Your task to perform on an android device: check the backup settings in the google photos Image 0: 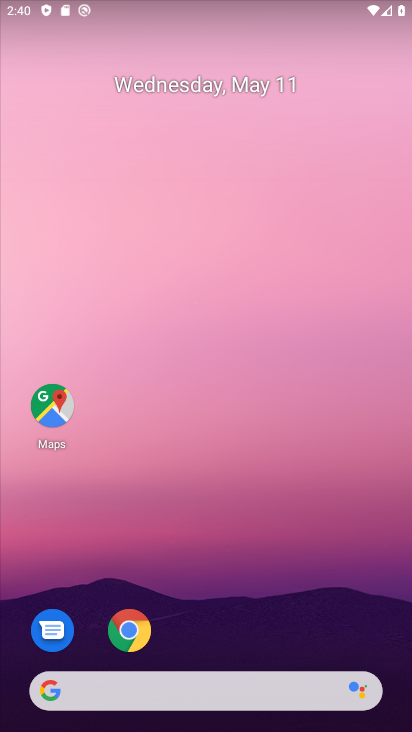
Step 0: drag from (369, 659) to (388, 27)
Your task to perform on an android device: check the backup settings in the google photos Image 1: 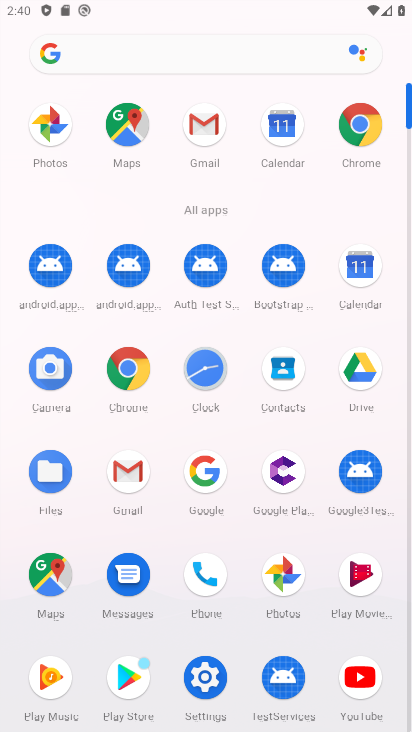
Step 1: click (53, 132)
Your task to perform on an android device: check the backup settings in the google photos Image 2: 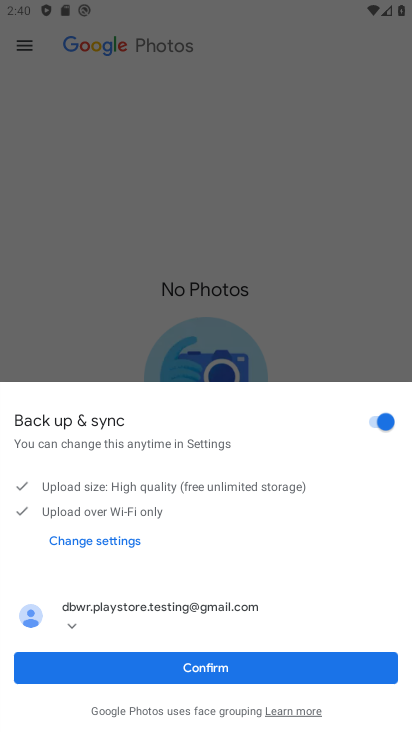
Step 2: click (231, 657)
Your task to perform on an android device: check the backup settings in the google photos Image 3: 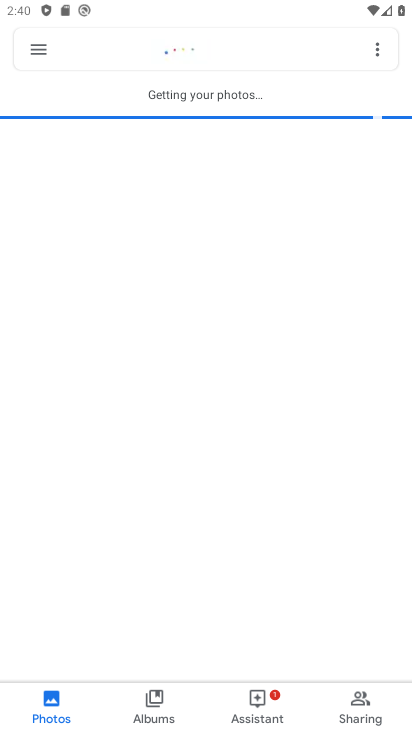
Step 3: click (44, 53)
Your task to perform on an android device: check the backup settings in the google photos Image 4: 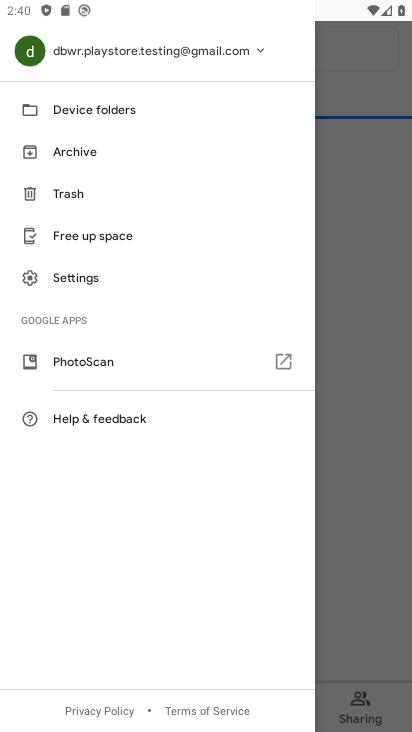
Step 4: click (76, 277)
Your task to perform on an android device: check the backup settings in the google photos Image 5: 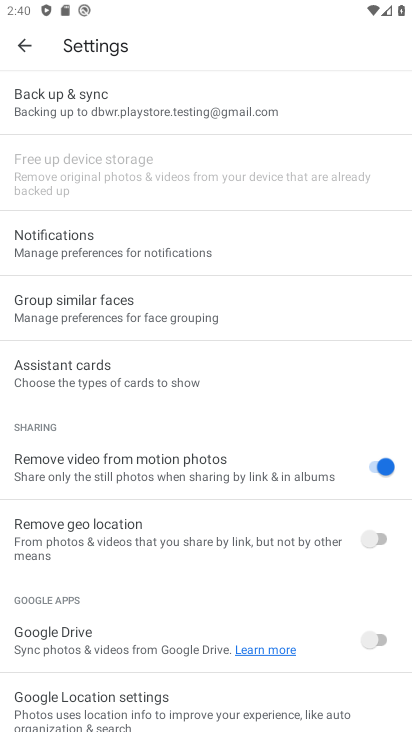
Step 5: click (85, 116)
Your task to perform on an android device: check the backup settings in the google photos Image 6: 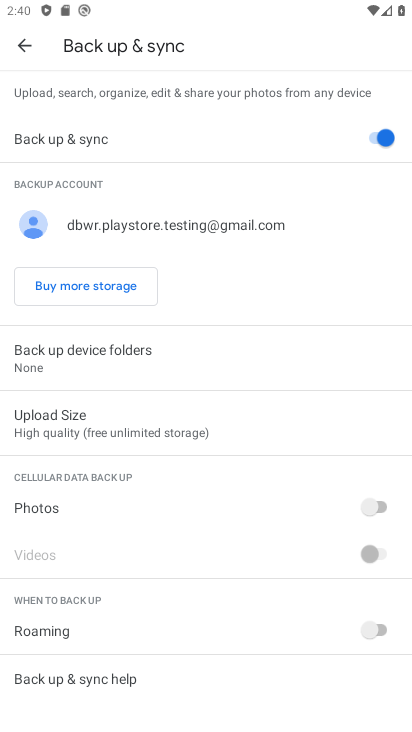
Step 6: task complete